Your task to perform on an android device: Show me some nice wallpapers for my tablet Image 0: 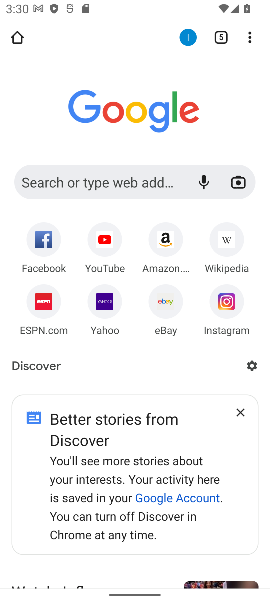
Step 0: click (76, 184)
Your task to perform on an android device: Show me some nice wallpapers for my tablet Image 1: 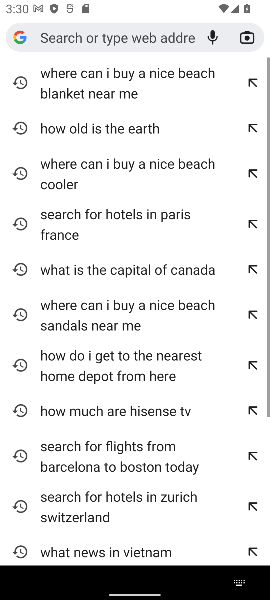
Step 1: type "Show me some nice wallpapers for my tablet"
Your task to perform on an android device: Show me some nice wallpapers for my tablet Image 2: 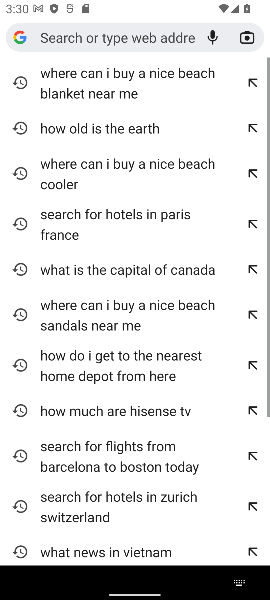
Step 2: click (97, 41)
Your task to perform on an android device: Show me some nice wallpapers for my tablet Image 3: 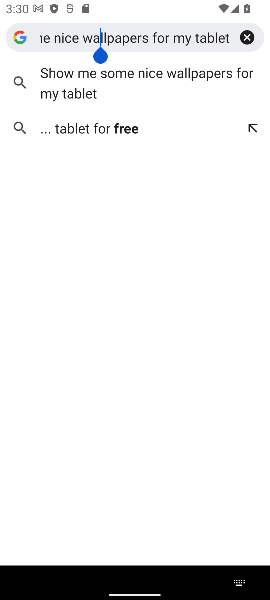
Step 3: click (148, 86)
Your task to perform on an android device: Show me some nice wallpapers for my tablet Image 4: 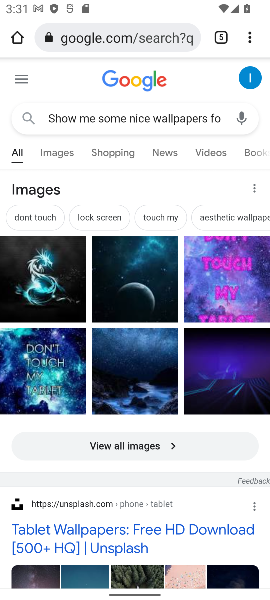
Step 4: task complete